Your task to perform on an android device: Open ESPN.com Image 0: 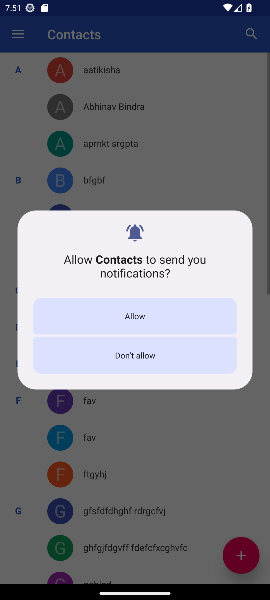
Step 0: press home button
Your task to perform on an android device: Open ESPN.com Image 1: 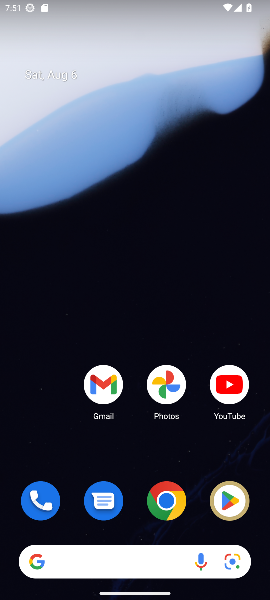
Step 1: click (94, 558)
Your task to perform on an android device: Open ESPN.com Image 2: 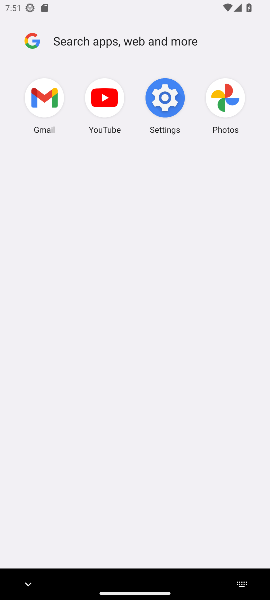
Step 2: type "ESPN.com"
Your task to perform on an android device: Open ESPN.com Image 3: 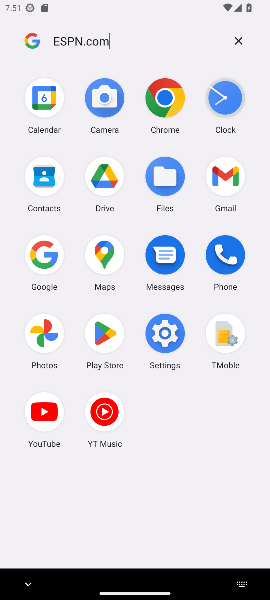
Step 3: type ""
Your task to perform on an android device: Open ESPN.com Image 4: 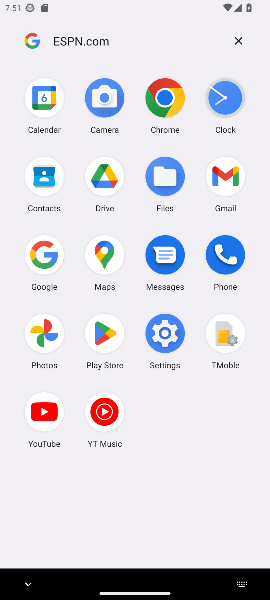
Step 4: type ""
Your task to perform on an android device: Open ESPN.com Image 5: 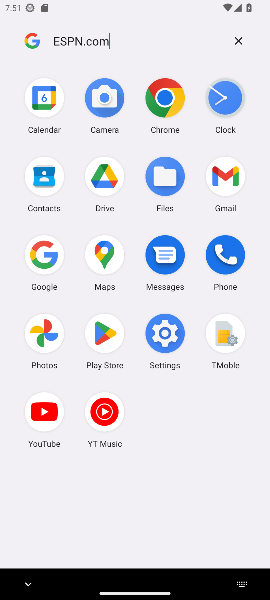
Step 5: type ""
Your task to perform on an android device: Open ESPN.com Image 6: 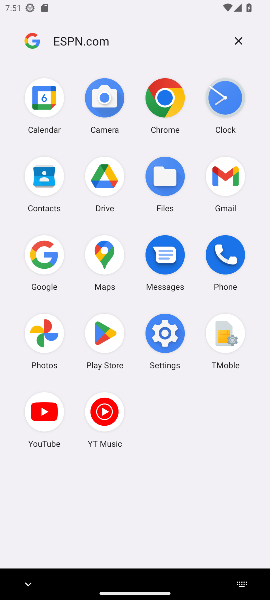
Step 6: task complete